Your task to perform on an android device: turn off wifi Image 0: 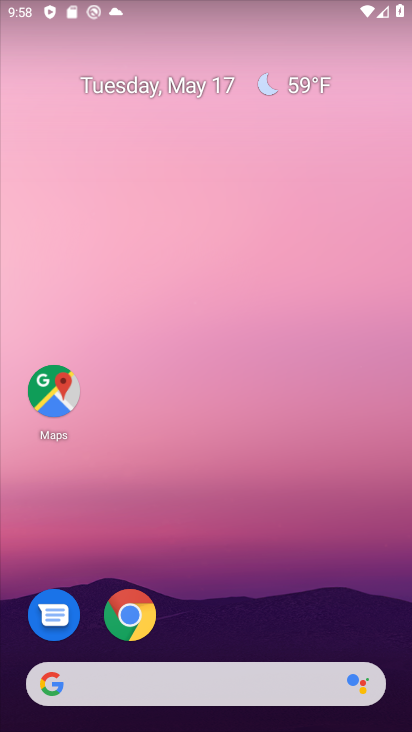
Step 0: press home button
Your task to perform on an android device: turn off wifi Image 1: 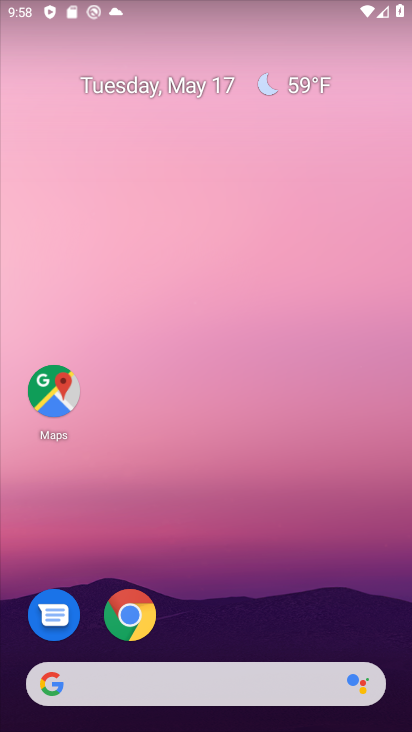
Step 1: drag from (222, 629) to (314, 113)
Your task to perform on an android device: turn off wifi Image 2: 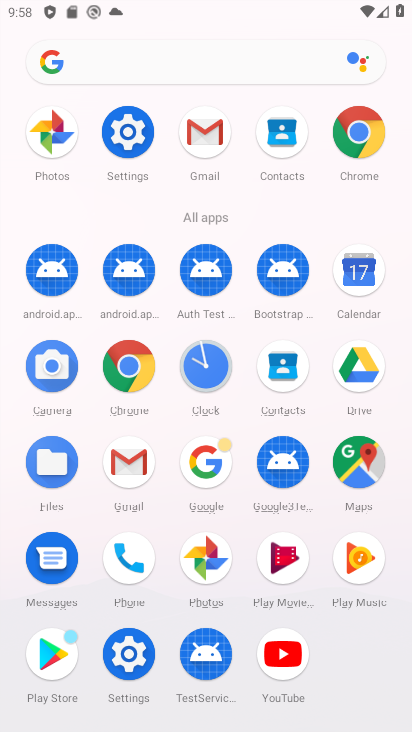
Step 2: click (127, 130)
Your task to perform on an android device: turn off wifi Image 3: 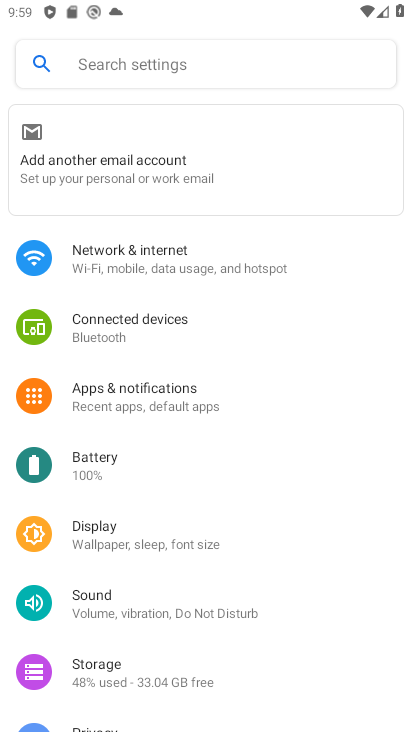
Step 3: click (146, 253)
Your task to perform on an android device: turn off wifi Image 4: 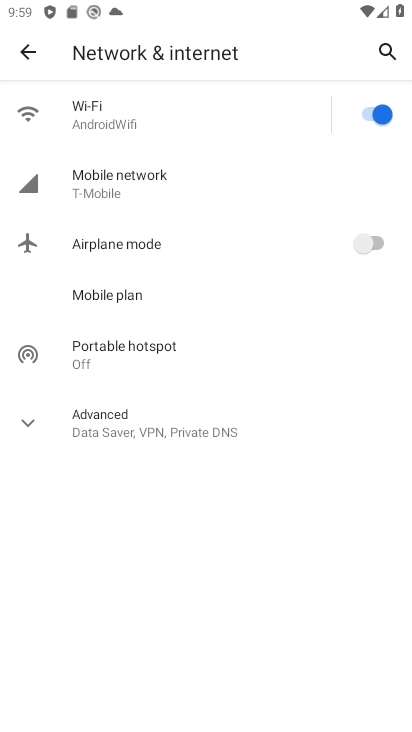
Step 4: click (367, 114)
Your task to perform on an android device: turn off wifi Image 5: 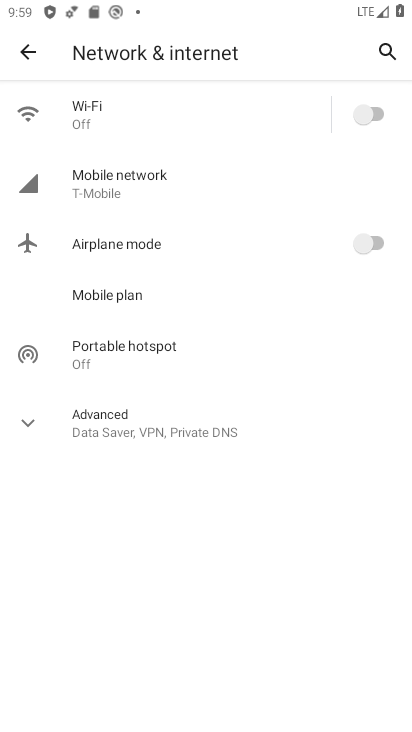
Step 5: task complete